Your task to perform on an android device: turn on location history Image 0: 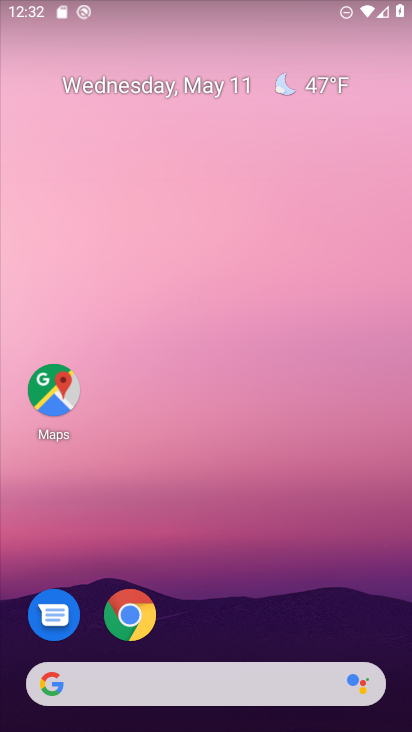
Step 0: drag from (260, 602) to (220, 214)
Your task to perform on an android device: turn on location history Image 1: 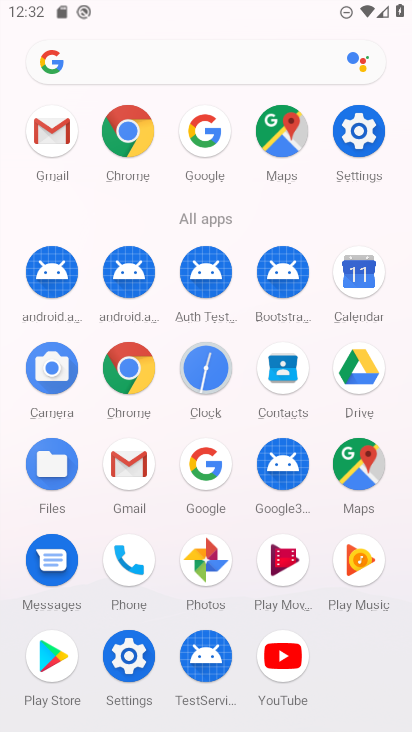
Step 1: click (347, 144)
Your task to perform on an android device: turn on location history Image 2: 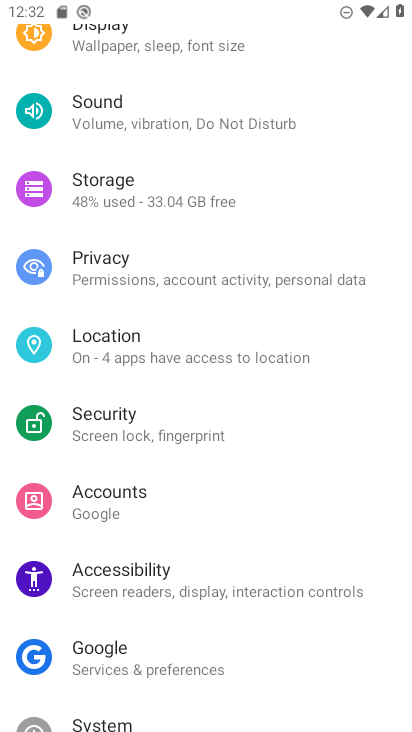
Step 2: click (132, 346)
Your task to perform on an android device: turn on location history Image 3: 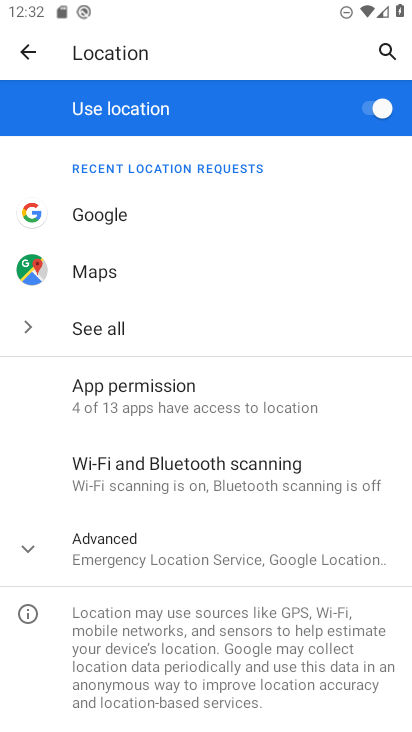
Step 3: drag from (101, 611) to (90, 370)
Your task to perform on an android device: turn on location history Image 4: 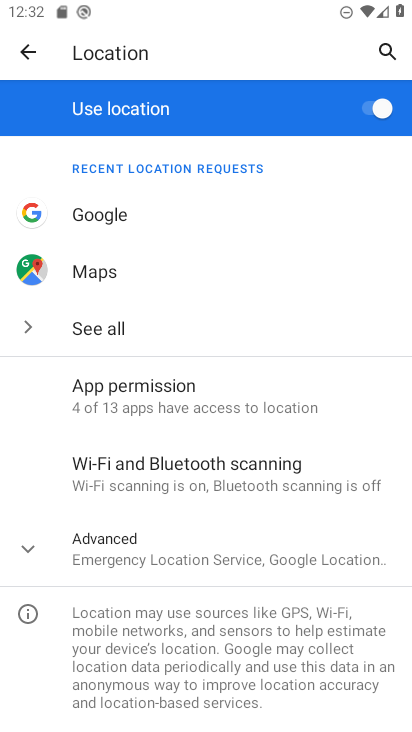
Step 4: drag from (154, 608) to (203, 279)
Your task to perform on an android device: turn on location history Image 5: 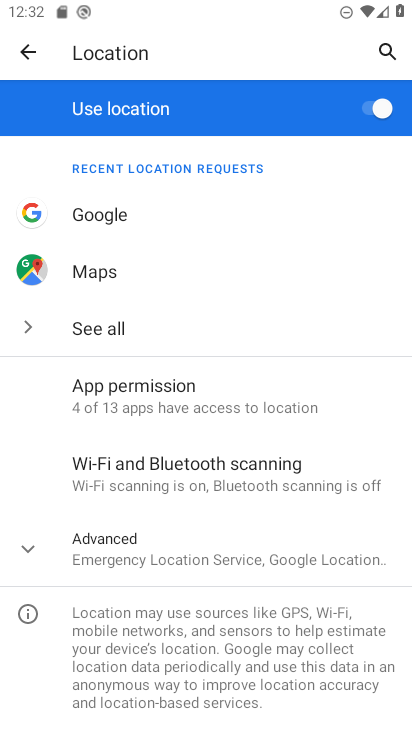
Step 5: click (144, 565)
Your task to perform on an android device: turn on location history Image 6: 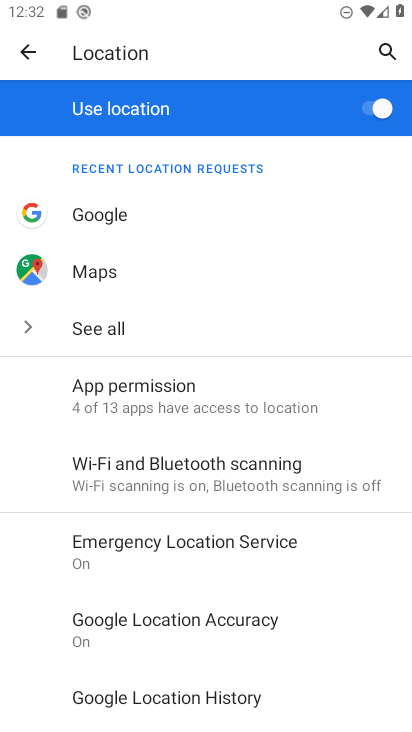
Step 6: drag from (146, 554) to (169, 376)
Your task to perform on an android device: turn on location history Image 7: 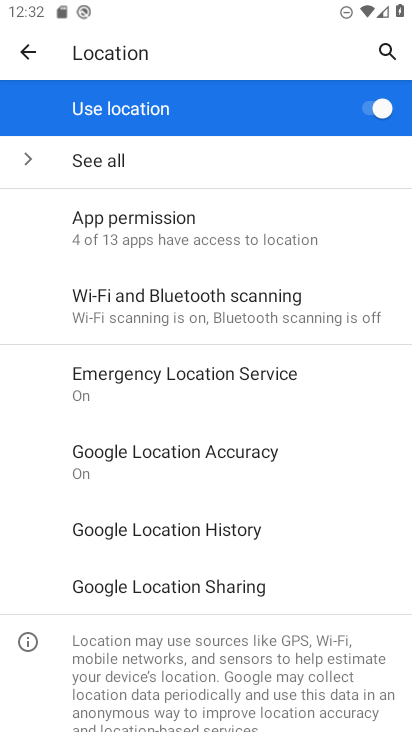
Step 7: click (188, 546)
Your task to perform on an android device: turn on location history Image 8: 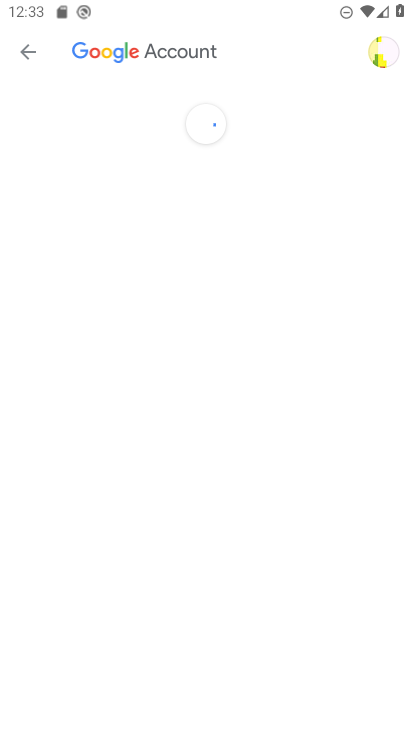
Step 8: drag from (196, 637) to (150, 333)
Your task to perform on an android device: turn on location history Image 9: 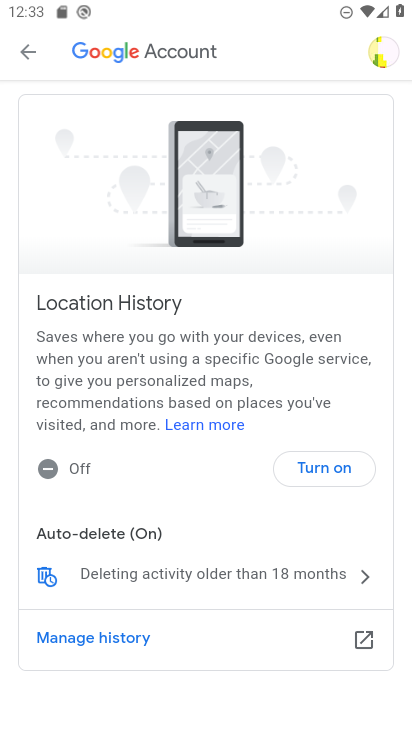
Step 9: click (320, 468)
Your task to perform on an android device: turn on location history Image 10: 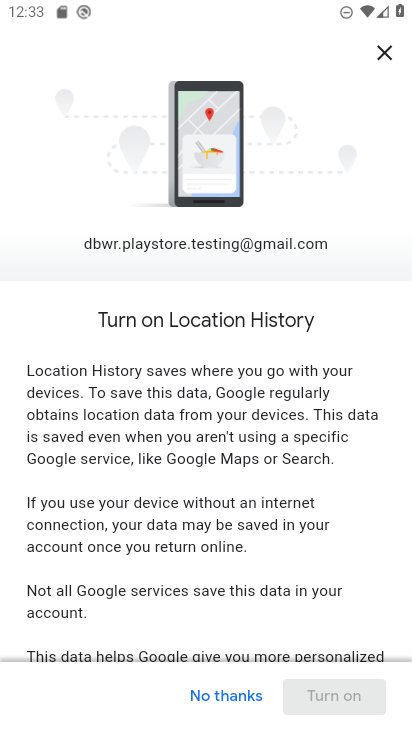
Step 10: drag from (282, 598) to (229, 144)
Your task to perform on an android device: turn on location history Image 11: 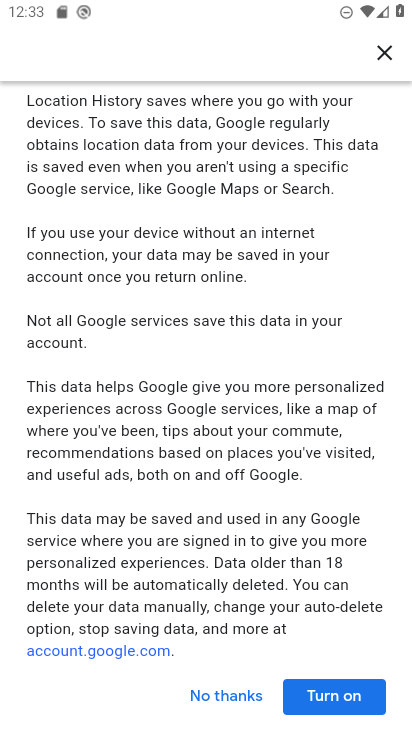
Step 11: drag from (210, 572) to (172, 328)
Your task to perform on an android device: turn on location history Image 12: 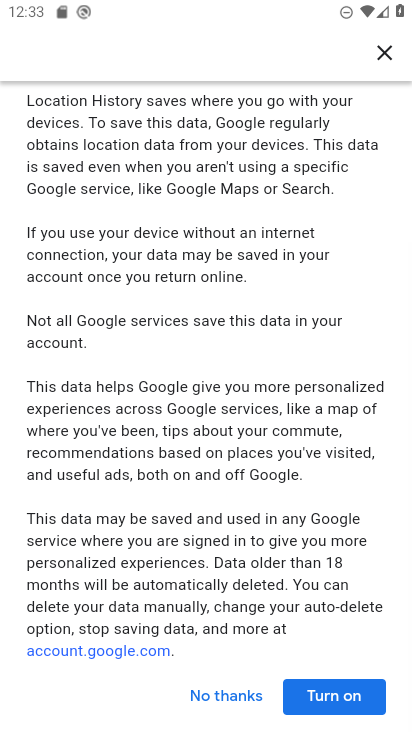
Step 12: click (316, 696)
Your task to perform on an android device: turn on location history Image 13: 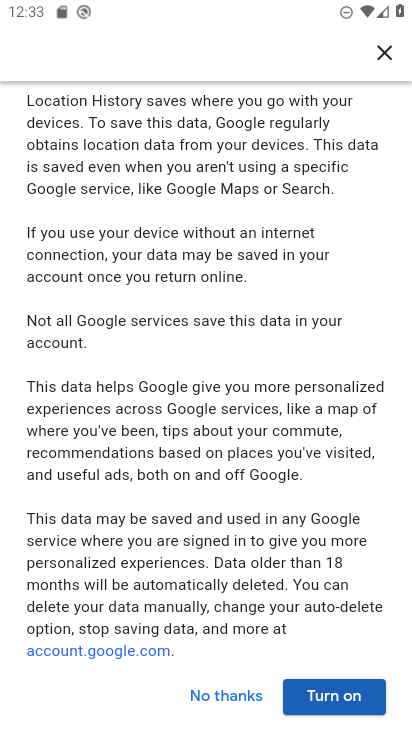
Step 13: click (350, 699)
Your task to perform on an android device: turn on location history Image 14: 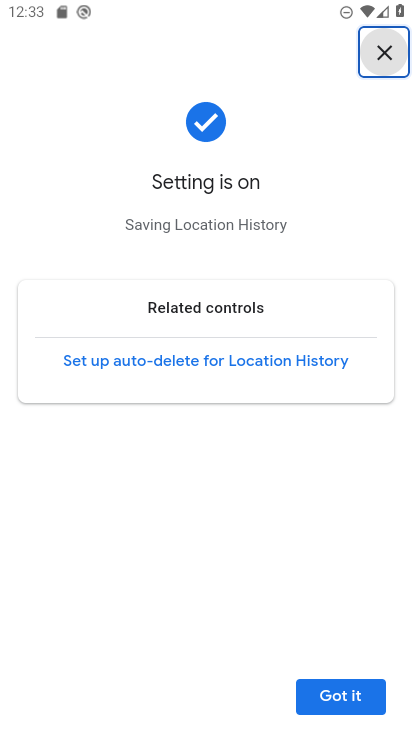
Step 14: click (349, 694)
Your task to perform on an android device: turn on location history Image 15: 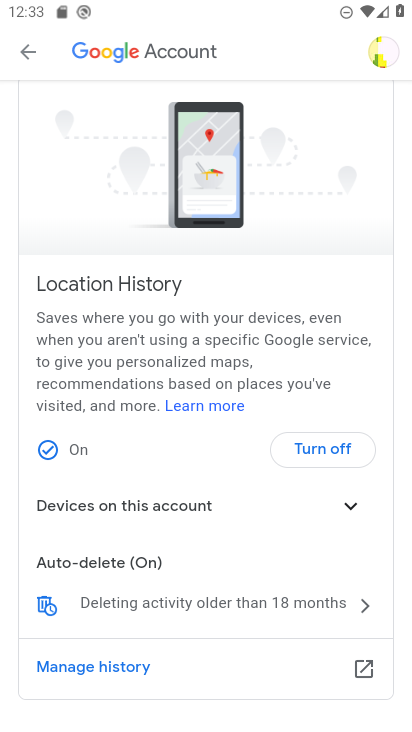
Step 15: task complete